Your task to perform on an android device: Open Google Maps Image 0: 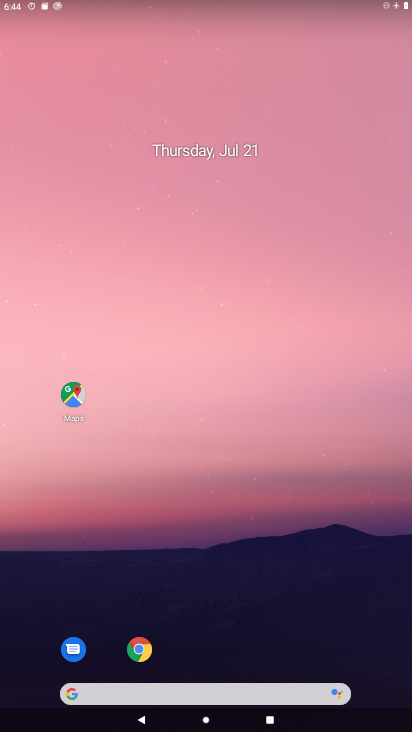
Step 0: drag from (365, 615) to (261, 54)
Your task to perform on an android device: Open Google Maps Image 1: 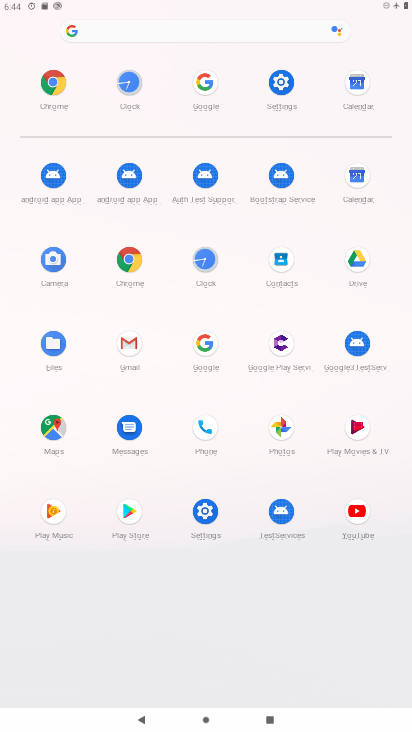
Step 1: click (55, 425)
Your task to perform on an android device: Open Google Maps Image 2: 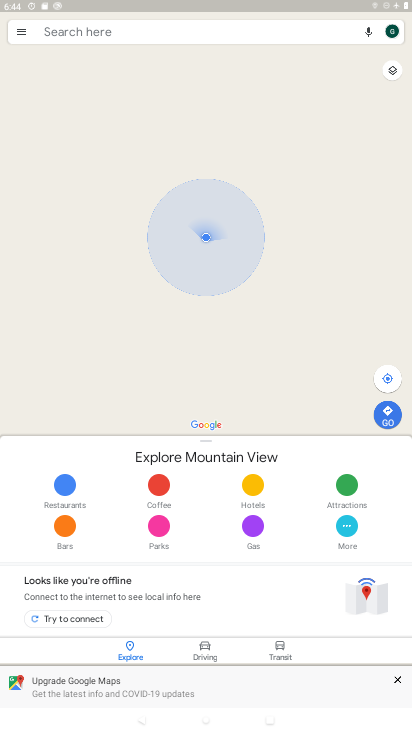
Step 2: task complete